Your task to perform on an android device: toggle javascript in the chrome app Image 0: 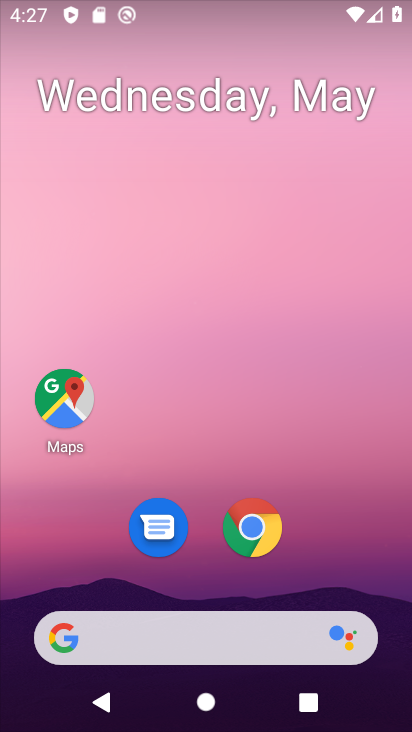
Step 0: click (264, 551)
Your task to perform on an android device: toggle javascript in the chrome app Image 1: 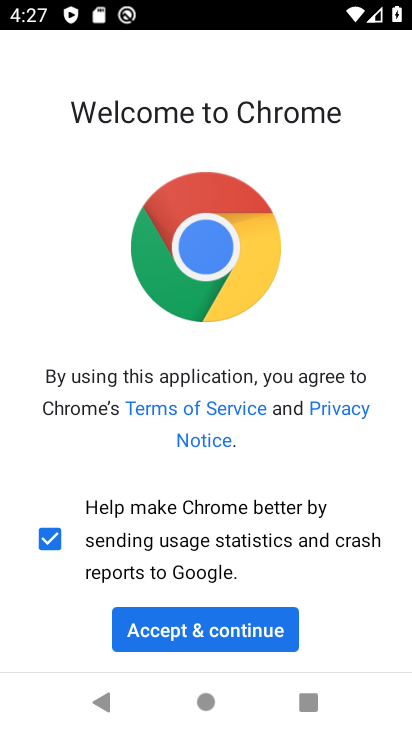
Step 1: click (231, 640)
Your task to perform on an android device: toggle javascript in the chrome app Image 2: 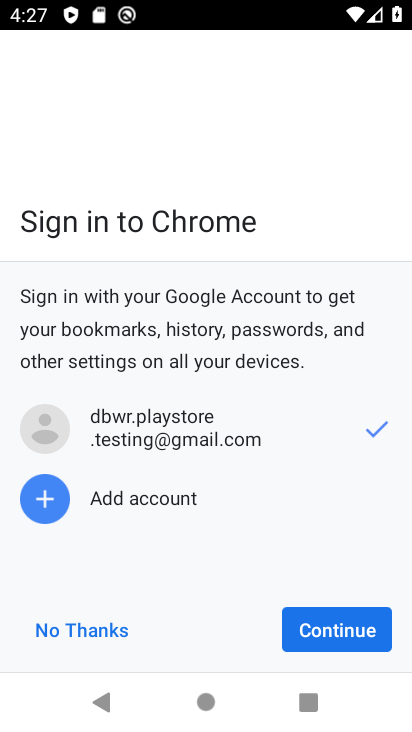
Step 2: click (349, 640)
Your task to perform on an android device: toggle javascript in the chrome app Image 3: 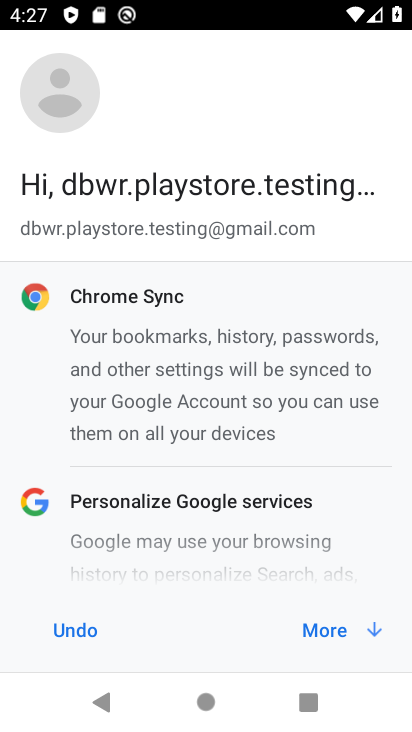
Step 3: click (349, 640)
Your task to perform on an android device: toggle javascript in the chrome app Image 4: 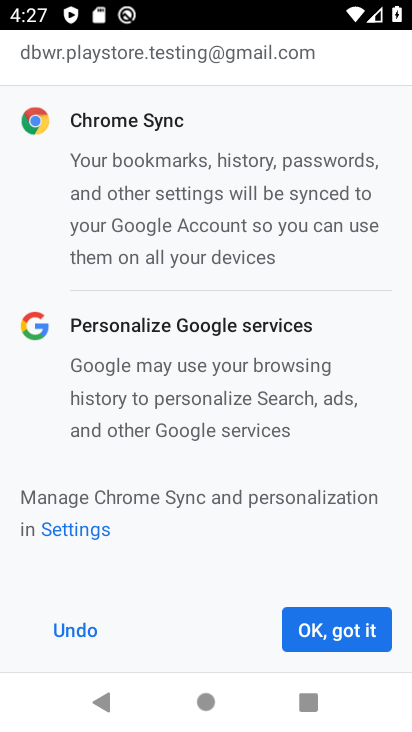
Step 4: click (349, 640)
Your task to perform on an android device: toggle javascript in the chrome app Image 5: 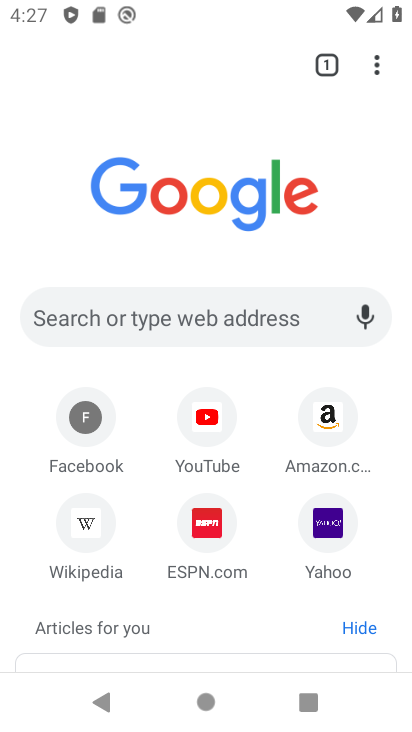
Step 5: drag from (385, 77) to (260, 575)
Your task to perform on an android device: toggle javascript in the chrome app Image 6: 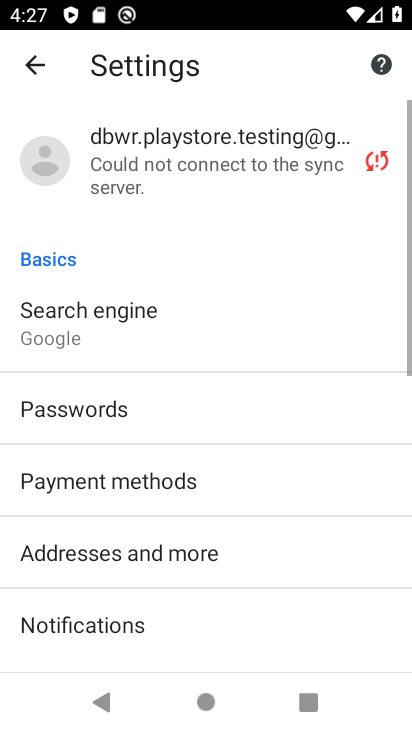
Step 6: drag from (213, 652) to (337, 229)
Your task to perform on an android device: toggle javascript in the chrome app Image 7: 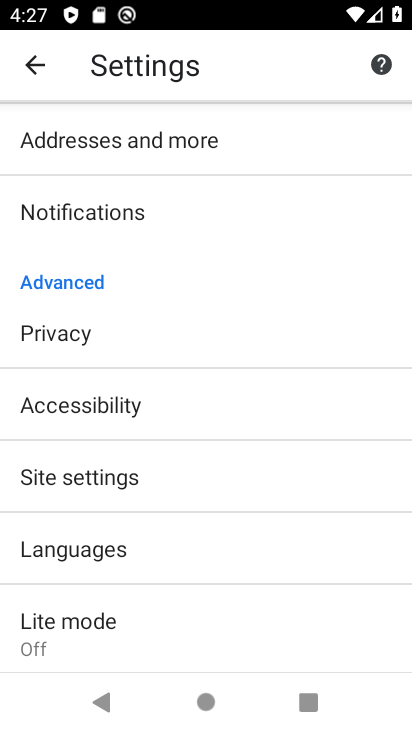
Step 7: click (193, 483)
Your task to perform on an android device: toggle javascript in the chrome app Image 8: 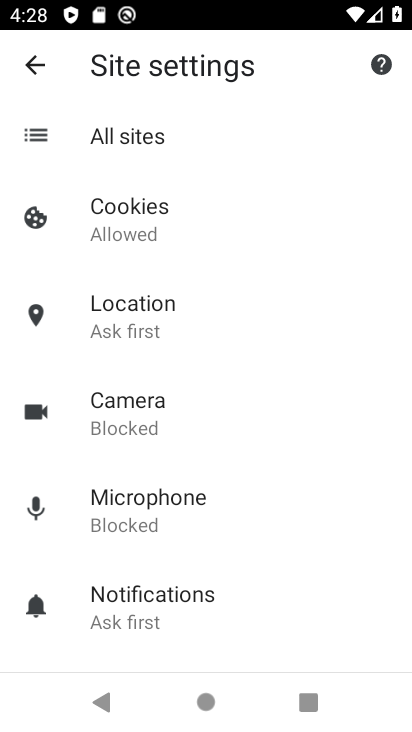
Step 8: drag from (183, 620) to (260, 402)
Your task to perform on an android device: toggle javascript in the chrome app Image 9: 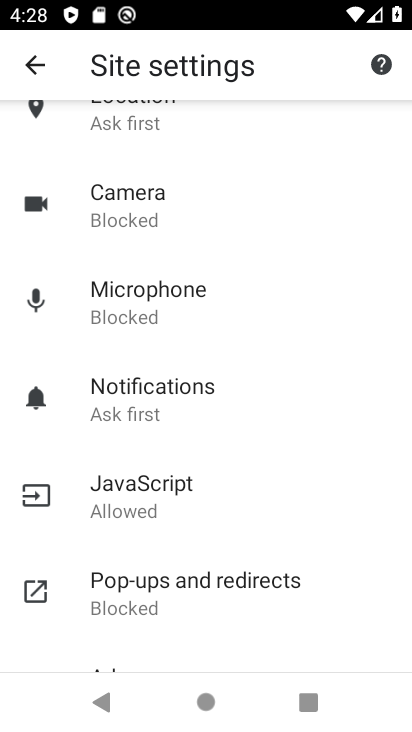
Step 9: click (182, 489)
Your task to perform on an android device: toggle javascript in the chrome app Image 10: 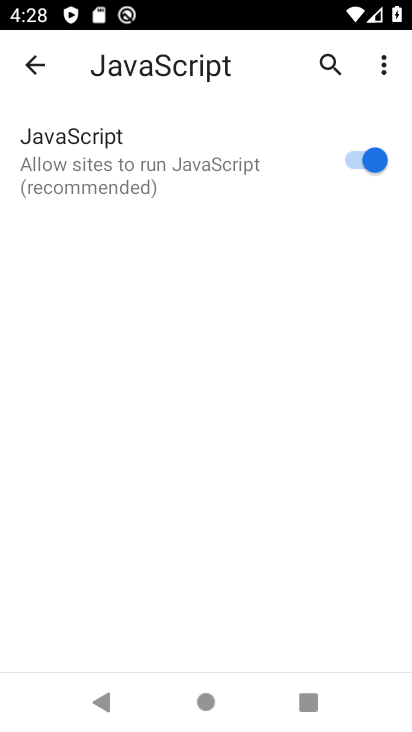
Step 10: click (357, 153)
Your task to perform on an android device: toggle javascript in the chrome app Image 11: 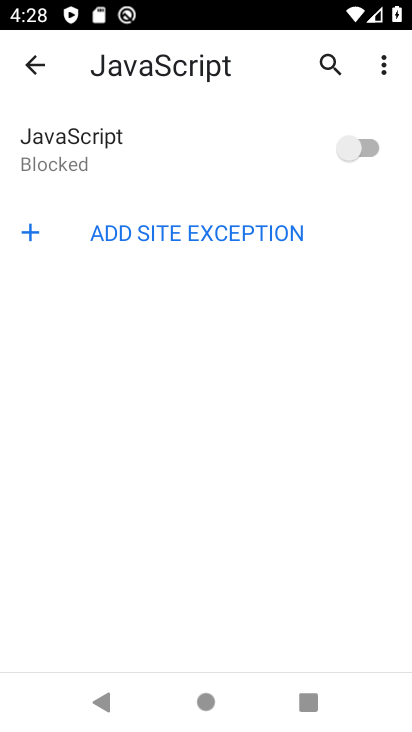
Step 11: task complete